Your task to perform on an android device: turn off data saver in the chrome app Image 0: 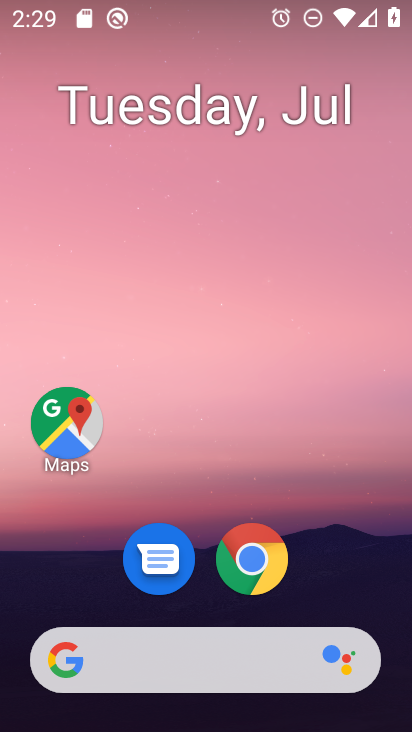
Step 0: drag from (329, 568) to (382, 117)
Your task to perform on an android device: turn off data saver in the chrome app Image 1: 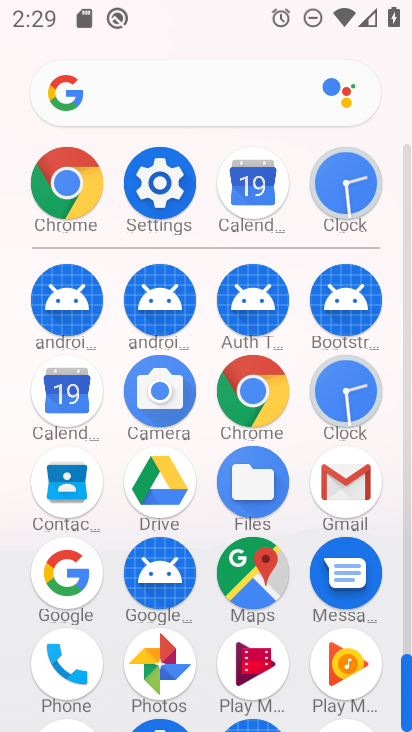
Step 1: click (268, 399)
Your task to perform on an android device: turn off data saver in the chrome app Image 2: 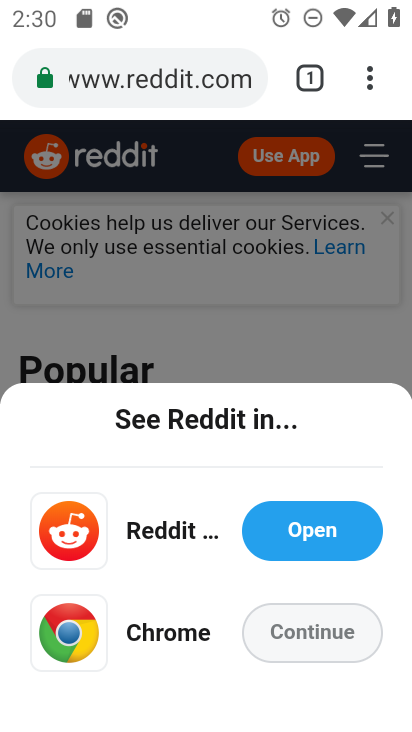
Step 2: click (368, 90)
Your task to perform on an android device: turn off data saver in the chrome app Image 3: 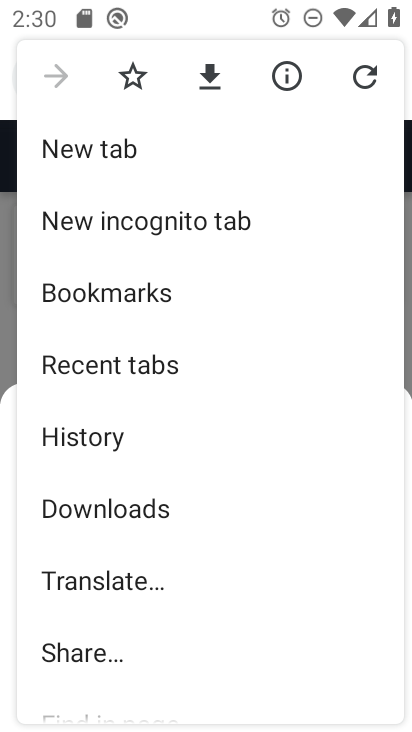
Step 3: drag from (322, 421) to (333, 334)
Your task to perform on an android device: turn off data saver in the chrome app Image 4: 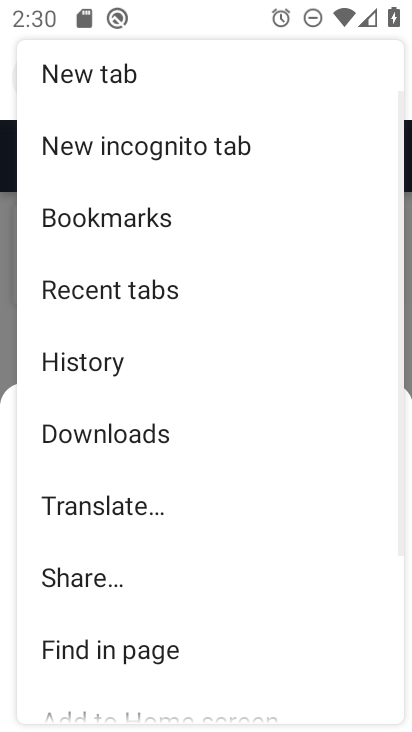
Step 4: drag from (323, 468) to (327, 390)
Your task to perform on an android device: turn off data saver in the chrome app Image 5: 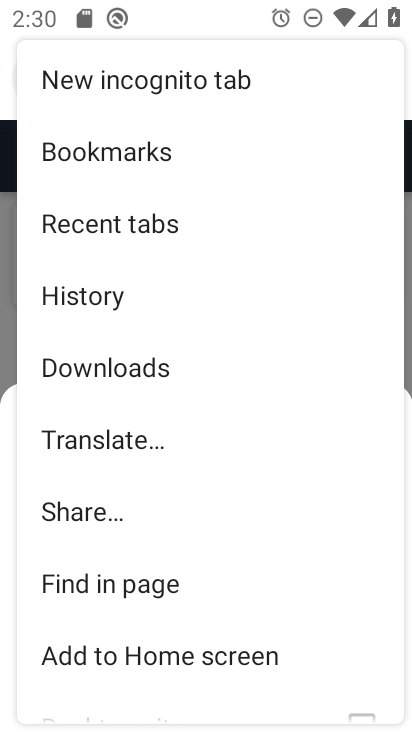
Step 5: drag from (297, 484) to (305, 368)
Your task to perform on an android device: turn off data saver in the chrome app Image 6: 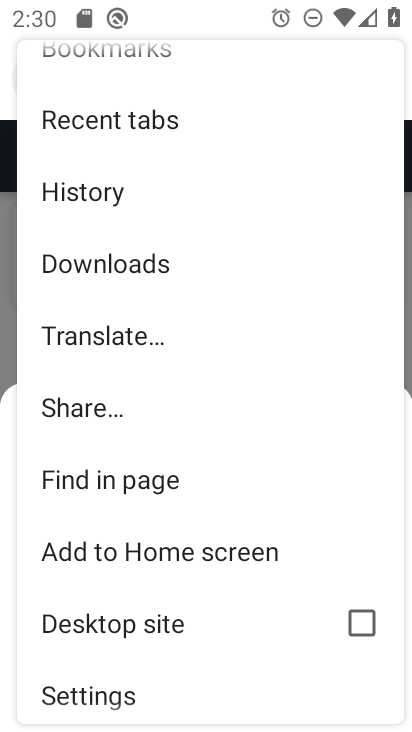
Step 6: drag from (304, 445) to (307, 370)
Your task to perform on an android device: turn off data saver in the chrome app Image 7: 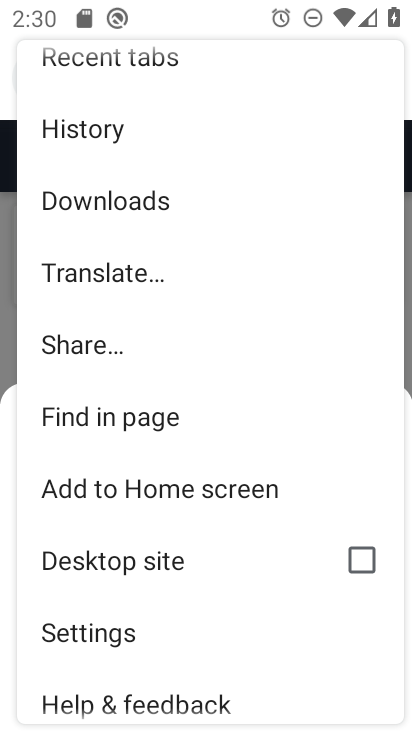
Step 7: drag from (296, 509) to (310, 409)
Your task to perform on an android device: turn off data saver in the chrome app Image 8: 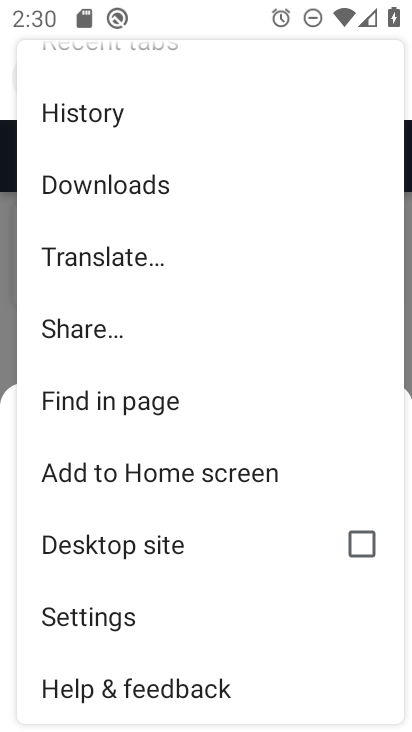
Step 8: click (181, 613)
Your task to perform on an android device: turn off data saver in the chrome app Image 9: 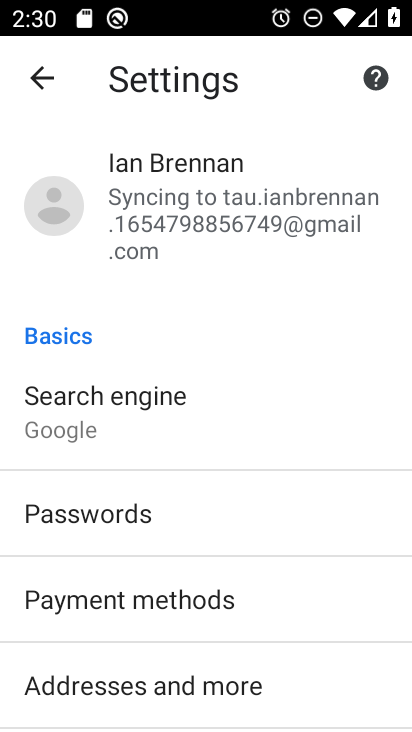
Step 9: drag from (287, 605) to (296, 554)
Your task to perform on an android device: turn off data saver in the chrome app Image 10: 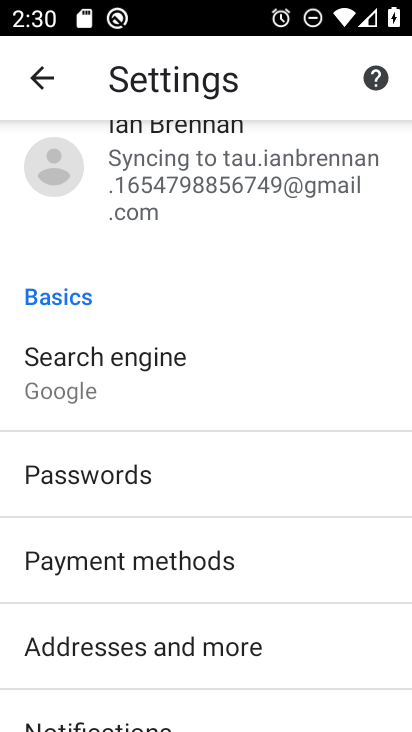
Step 10: drag from (306, 604) to (311, 522)
Your task to perform on an android device: turn off data saver in the chrome app Image 11: 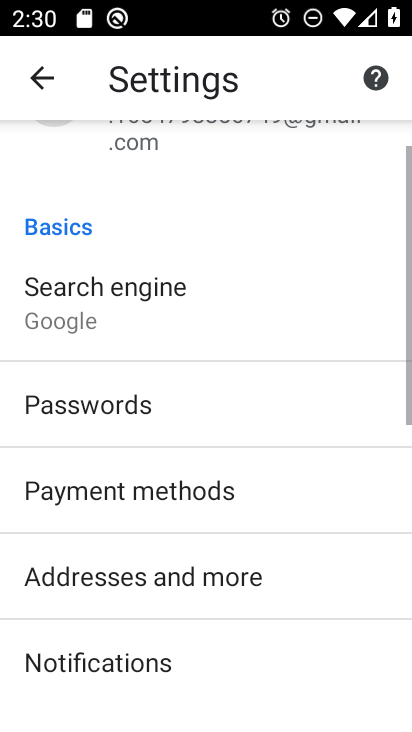
Step 11: drag from (319, 587) to (320, 516)
Your task to perform on an android device: turn off data saver in the chrome app Image 12: 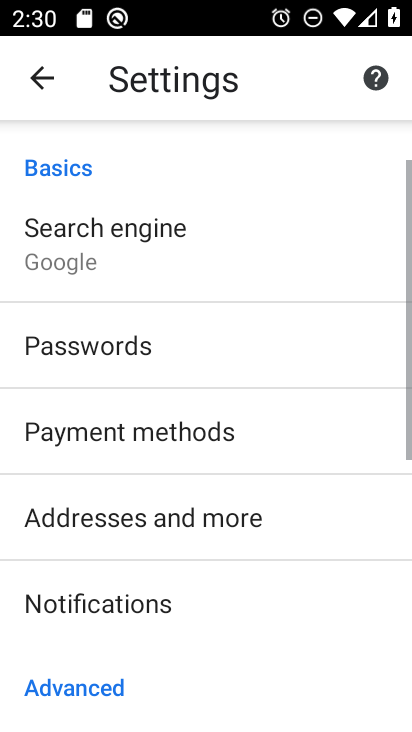
Step 12: drag from (326, 588) to (332, 507)
Your task to perform on an android device: turn off data saver in the chrome app Image 13: 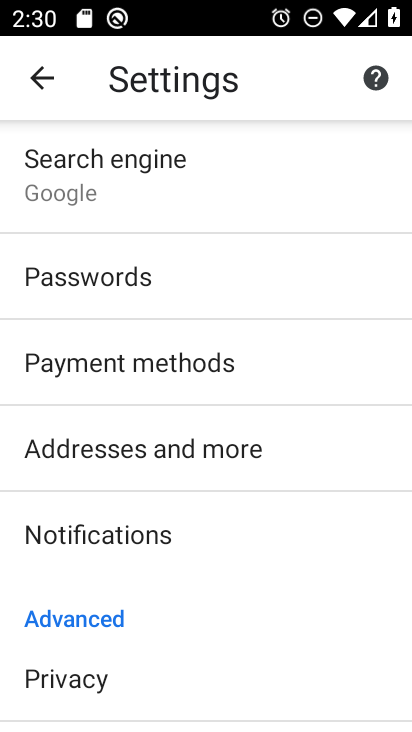
Step 13: drag from (326, 570) to (331, 484)
Your task to perform on an android device: turn off data saver in the chrome app Image 14: 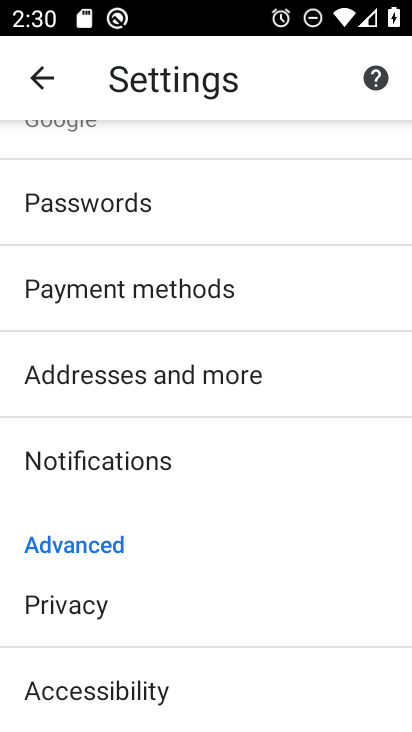
Step 14: drag from (316, 581) to (319, 459)
Your task to perform on an android device: turn off data saver in the chrome app Image 15: 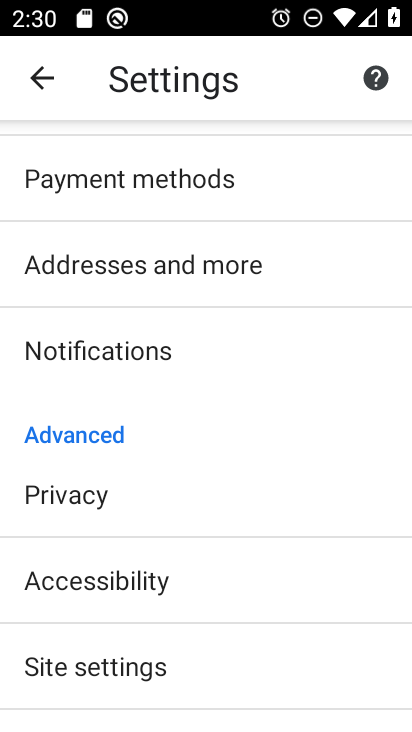
Step 15: drag from (322, 574) to (325, 463)
Your task to perform on an android device: turn off data saver in the chrome app Image 16: 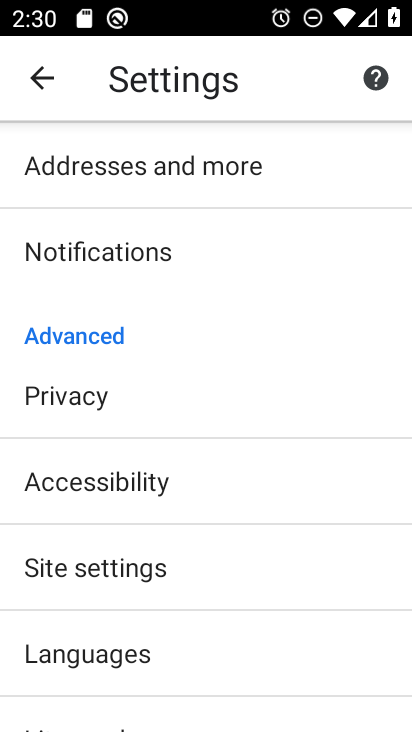
Step 16: drag from (319, 576) to (323, 455)
Your task to perform on an android device: turn off data saver in the chrome app Image 17: 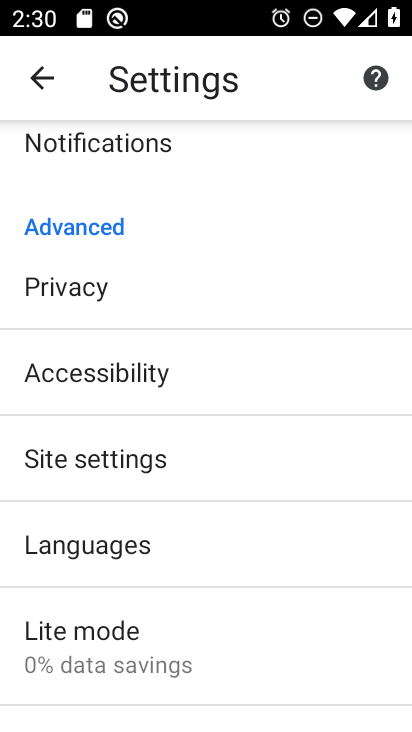
Step 17: click (323, 616)
Your task to perform on an android device: turn off data saver in the chrome app Image 18: 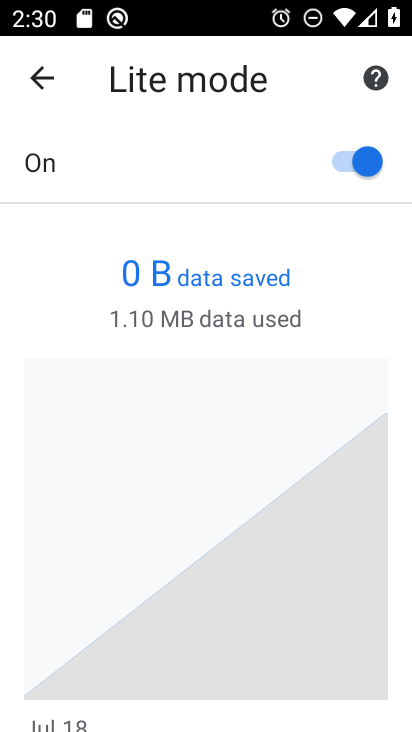
Step 18: click (347, 171)
Your task to perform on an android device: turn off data saver in the chrome app Image 19: 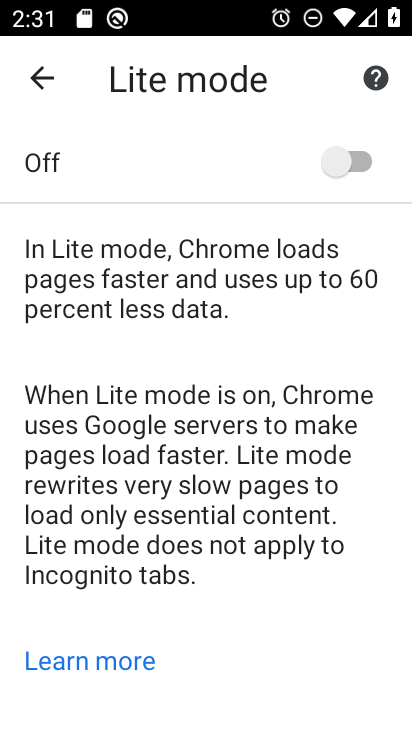
Step 19: task complete